Your task to perform on an android device: turn on data saver in the chrome app Image 0: 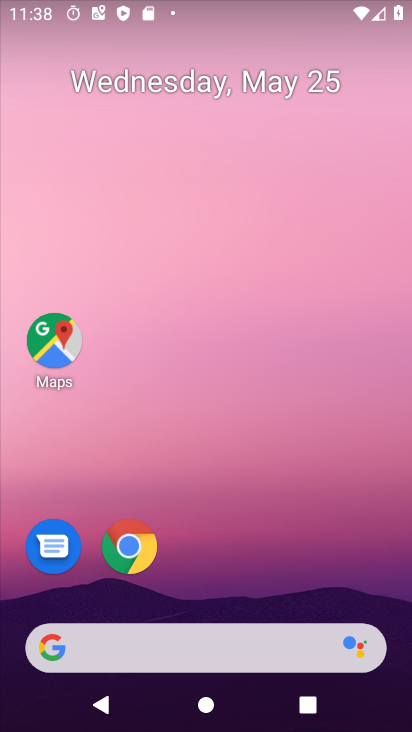
Step 0: click (128, 536)
Your task to perform on an android device: turn on data saver in the chrome app Image 1: 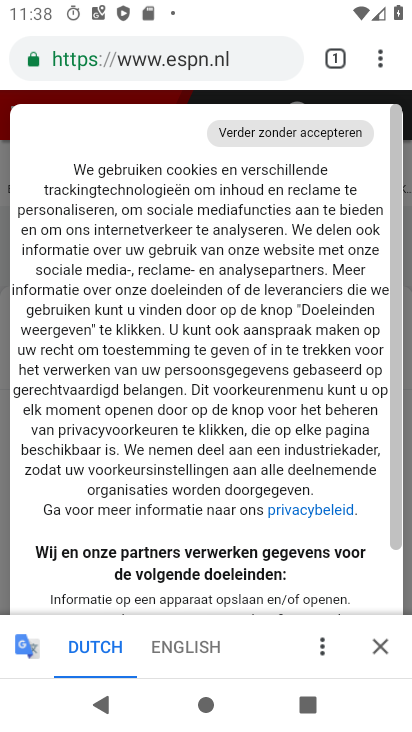
Step 1: click (378, 62)
Your task to perform on an android device: turn on data saver in the chrome app Image 2: 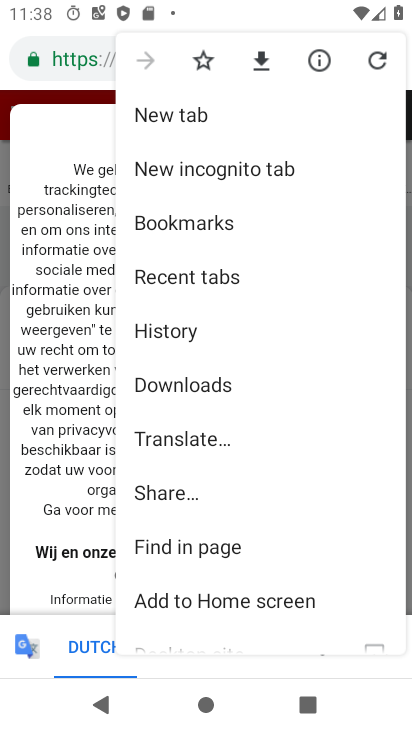
Step 2: drag from (239, 613) to (228, 182)
Your task to perform on an android device: turn on data saver in the chrome app Image 3: 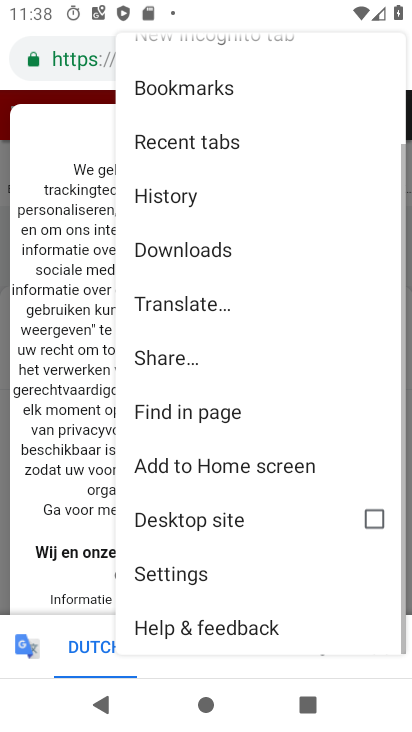
Step 3: click (195, 577)
Your task to perform on an android device: turn on data saver in the chrome app Image 4: 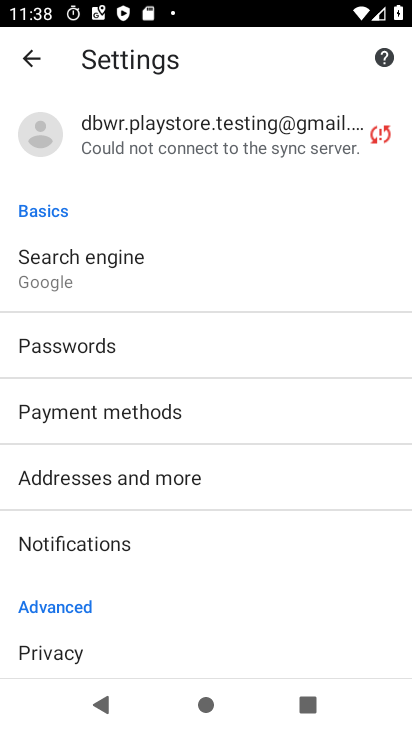
Step 4: drag from (184, 582) to (176, 6)
Your task to perform on an android device: turn on data saver in the chrome app Image 5: 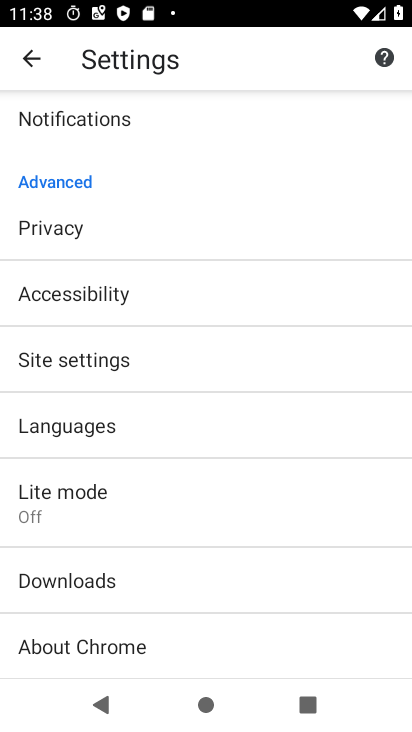
Step 5: click (104, 485)
Your task to perform on an android device: turn on data saver in the chrome app Image 6: 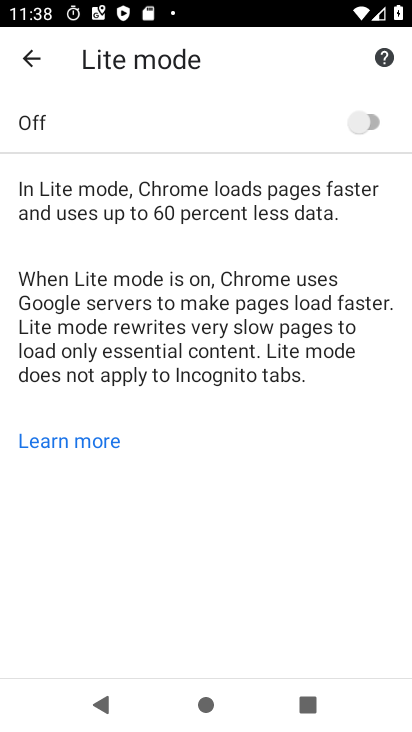
Step 6: click (343, 111)
Your task to perform on an android device: turn on data saver in the chrome app Image 7: 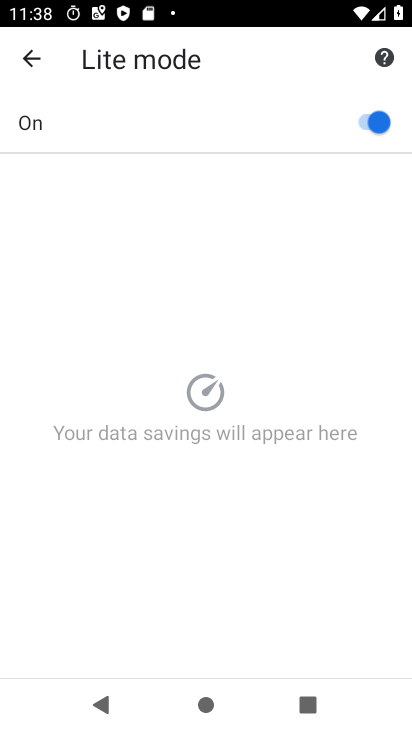
Step 7: task complete